Your task to perform on an android device: uninstall "Fetch Rewards" Image 0: 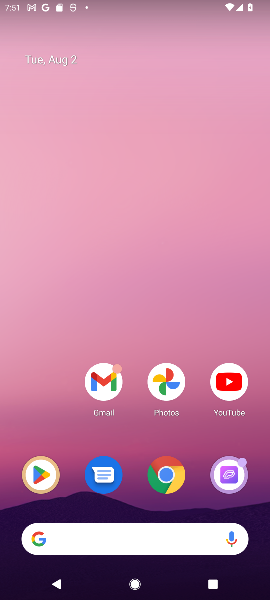
Step 0: click (60, 199)
Your task to perform on an android device: uninstall "Fetch Rewards" Image 1: 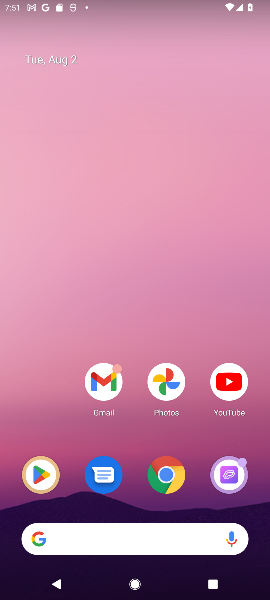
Step 1: drag from (126, 549) to (128, 202)
Your task to perform on an android device: uninstall "Fetch Rewards" Image 2: 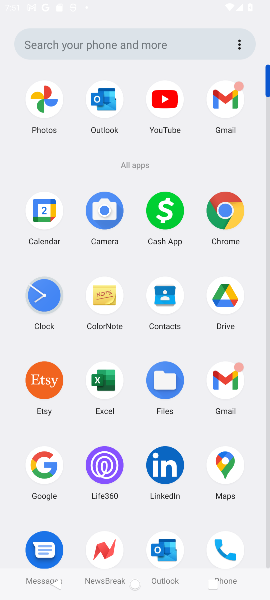
Step 2: drag from (178, 435) to (130, 94)
Your task to perform on an android device: uninstall "Fetch Rewards" Image 3: 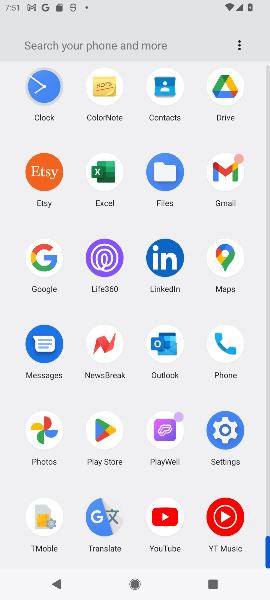
Step 3: drag from (218, 499) to (155, 127)
Your task to perform on an android device: uninstall "Fetch Rewards" Image 4: 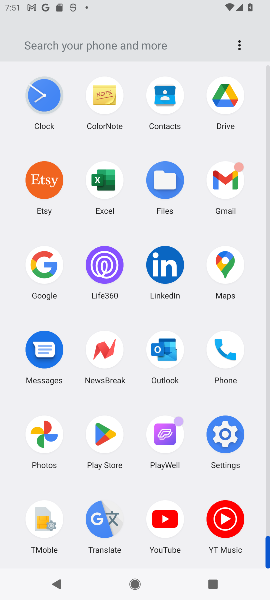
Step 4: click (105, 431)
Your task to perform on an android device: uninstall "Fetch Rewards" Image 5: 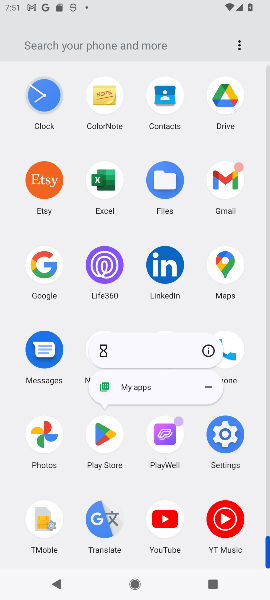
Step 5: click (105, 431)
Your task to perform on an android device: uninstall "Fetch Rewards" Image 6: 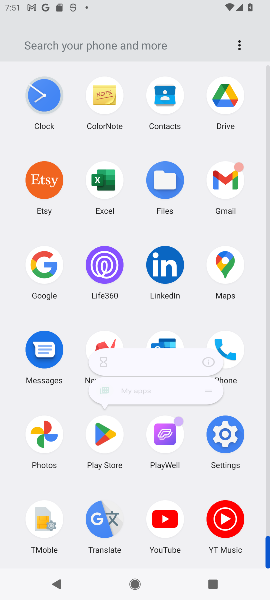
Step 6: click (104, 429)
Your task to perform on an android device: uninstall "Fetch Rewards" Image 7: 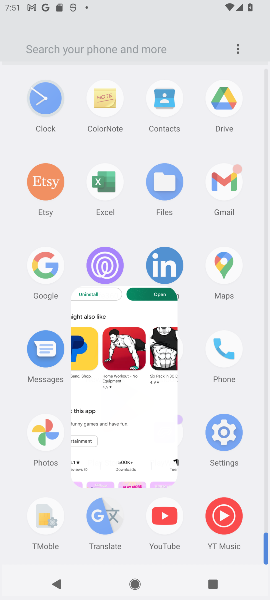
Step 7: click (103, 428)
Your task to perform on an android device: uninstall "Fetch Rewards" Image 8: 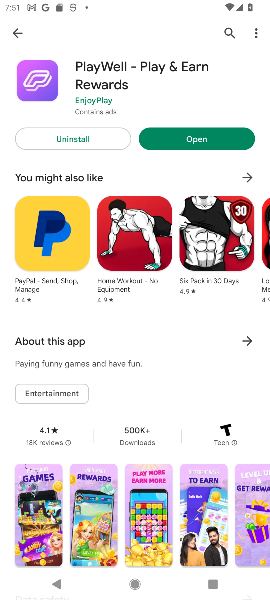
Step 8: click (23, 28)
Your task to perform on an android device: uninstall "Fetch Rewards" Image 9: 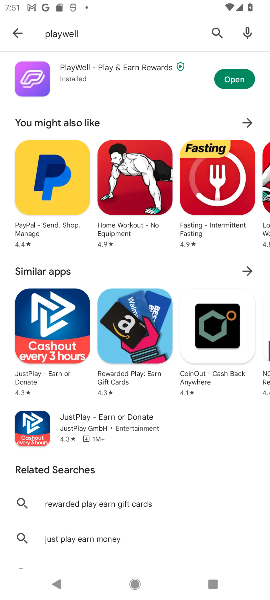
Step 9: click (91, 30)
Your task to perform on an android device: uninstall "Fetch Rewards" Image 10: 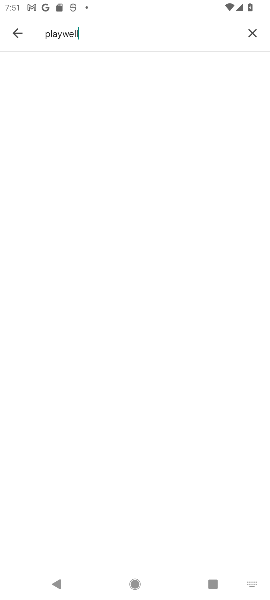
Step 10: click (90, 30)
Your task to perform on an android device: uninstall "Fetch Rewards" Image 11: 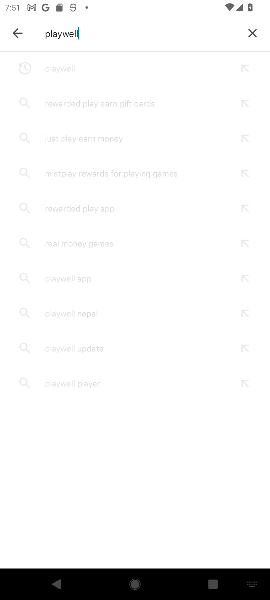
Step 11: click (91, 31)
Your task to perform on an android device: uninstall "Fetch Rewards" Image 12: 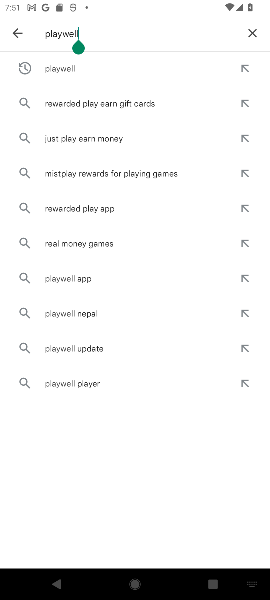
Step 12: click (91, 31)
Your task to perform on an android device: uninstall "Fetch Rewards" Image 13: 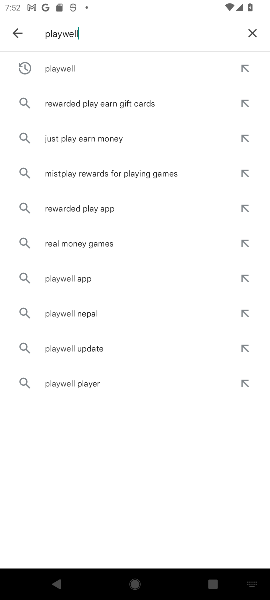
Step 13: click (253, 33)
Your task to perform on an android device: uninstall "Fetch Rewards" Image 14: 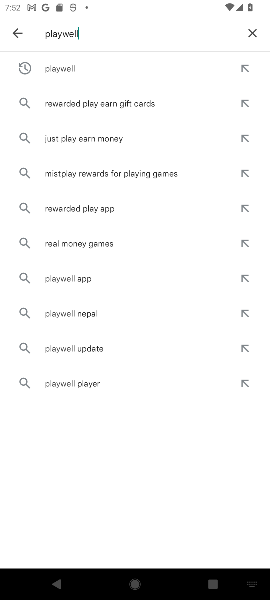
Step 14: click (253, 33)
Your task to perform on an android device: uninstall "Fetch Rewards" Image 15: 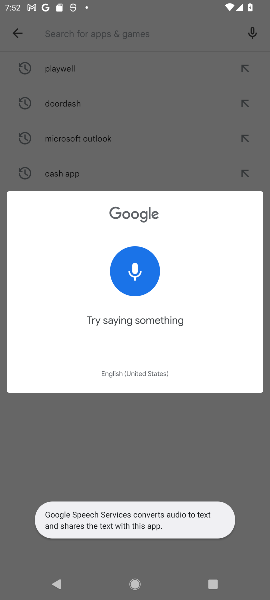
Step 15: click (164, 147)
Your task to perform on an android device: uninstall "Fetch Rewards" Image 16: 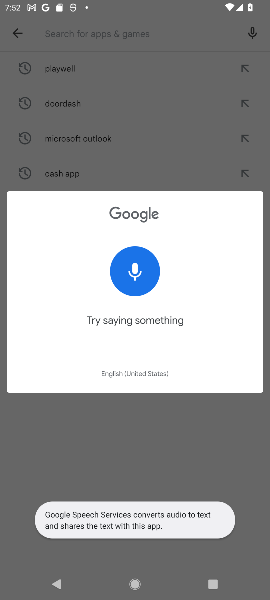
Step 16: click (164, 144)
Your task to perform on an android device: uninstall "Fetch Rewards" Image 17: 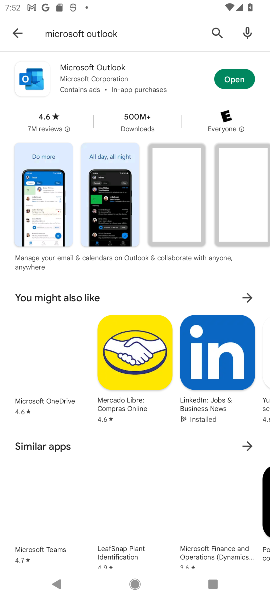
Step 17: click (18, 29)
Your task to perform on an android device: uninstall "Fetch Rewards" Image 18: 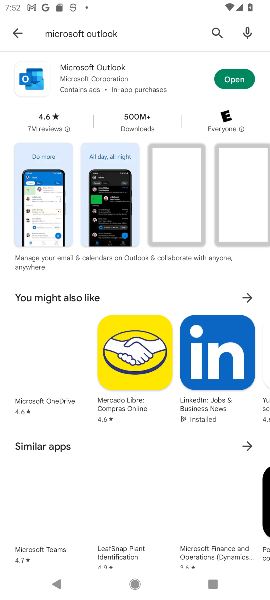
Step 18: click (17, 30)
Your task to perform on an android device: uninstall "Fetch Rewards" Image 19: 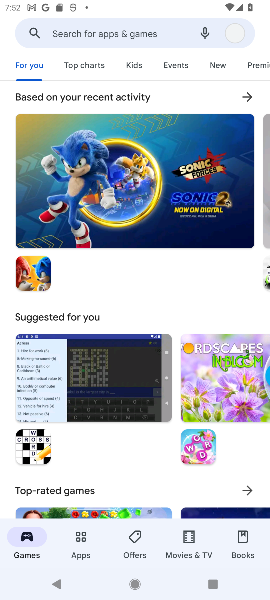
Step 19: click (17, 30)
Your task to perform on an android device: uninstall "Fetch Rewards" Image 20: 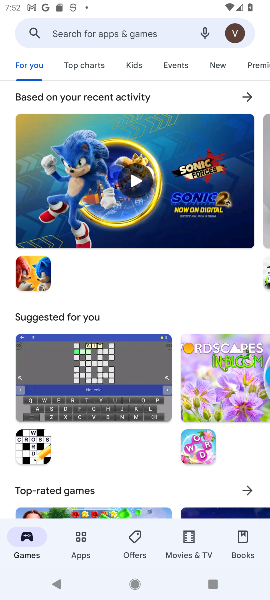
Step 20: type "fetch rewards"
Your task to perform on an android device: uninstall "Fetch Rewards" Image 21: 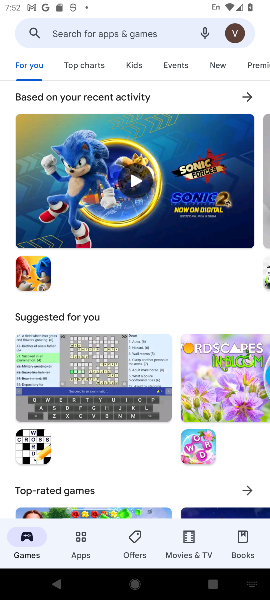
Step 21: click (96, 30)
Your task to perform on an android device: uninstall "Fetch Rewards" Image 22: 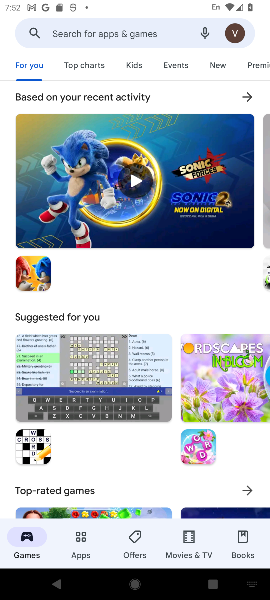
Step 22: click (100, 29)
Your task to perform on an android device: uninstall "Fetch Rewards" Image 23: 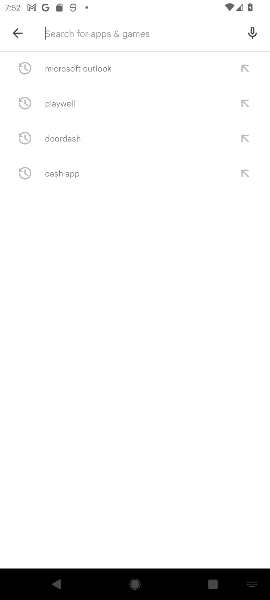
Step 23: click (105, 30)
Your task to perform on an android device: uninstall "Fetch Rewards" Image 24: 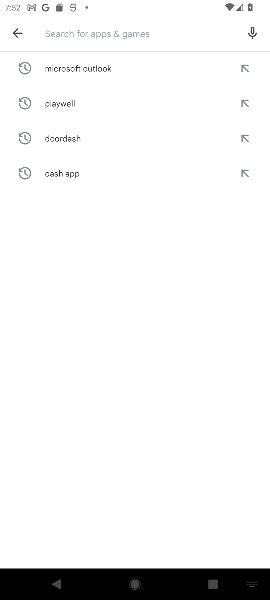
Step 24: click (105, 30)
Your task to perform on an android device: uninstall "Fetch Rewards" Image 25: 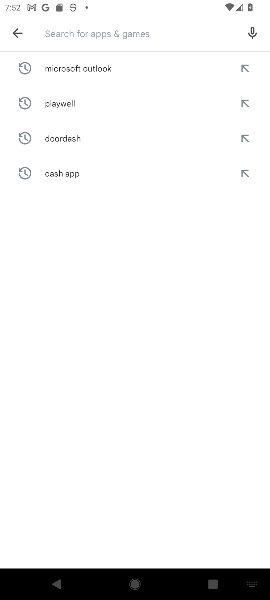
Step 25: type "fetch rewards"
Your task to perform on an android device: uninstall "Fetch Rewards" Image 26: 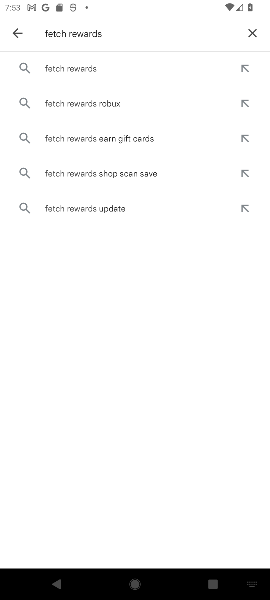
Step 26: click (77, 73)
Your task to perform on an android device: uninstall "Fetch Rewards" Image 27: 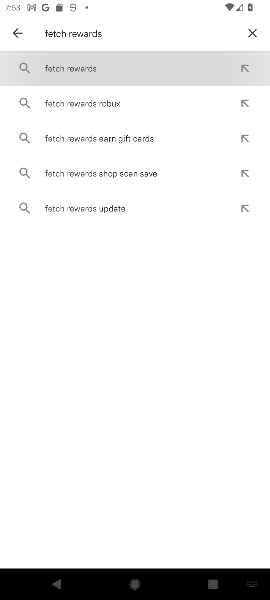
Step 27: click (80, 71)
Your task to perform on an android device: uninstall "Fetch Rewards" Image 28: 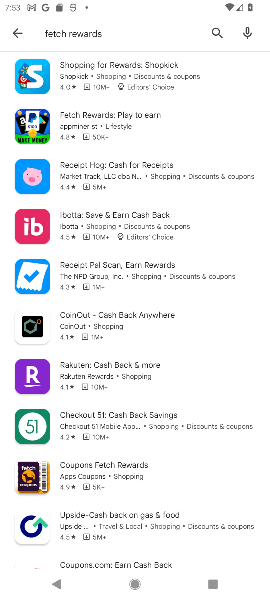
Step 28: task complete